Your task to perform on an android device: View the shopping cart on amazon. Search for "logitech g pro" on amazon, select the first entry, add it to the cart, then select checkout. Image 0: 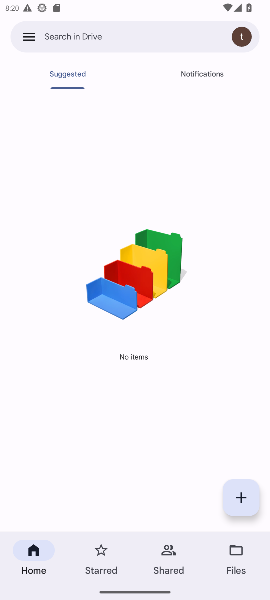
Step 0: press home button
Your task to perform on an android device: View the shopping cart on amazon. Search for "logitech g pro" on amazon, select the first entry, add it to the cart, then select checkout. Image 1: 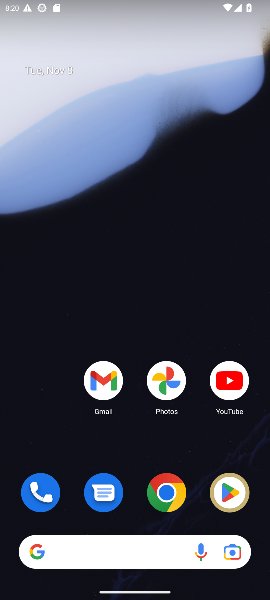
Step 1: click (161, 493)
Your task to perform on an android device: View the shopping cart on amazon. Search for "logitech g pro" on amazon, select the first entry, add it to the cart, then select checkout. Image 2: 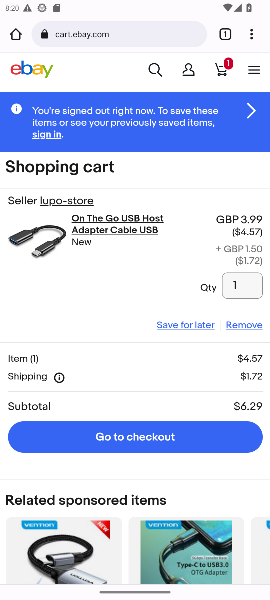
Step 2: click (163, 33)
Your task to perform on an android device: View the shopping cart on amazon. Search for "logitech g pro" on amazon, select the first entry, add it to the cart, then select checkout. Image 3: 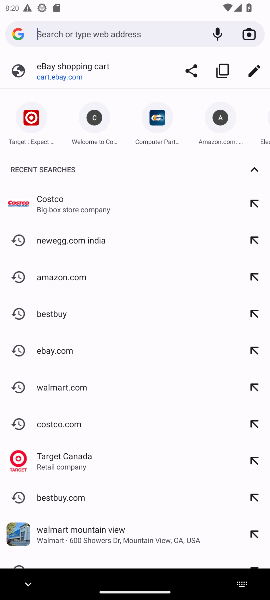
Step 3: type "amazon"
Your task to perform on an android device: View the shopping cart on amazon. Search for "logitech g pro" on amazon, select the first entry, add it to the cart, then select checkout. Image 4: 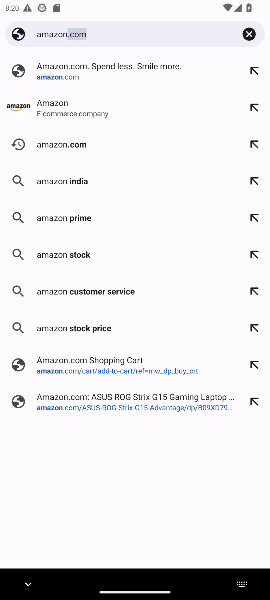
Step 4: click (56, 145)
Your task to perform on an android device: View the shopping cart on amazon. Search for "logitech g pro" on amazon, select the first entry, add it to the cart, then select checkout. Image 5: 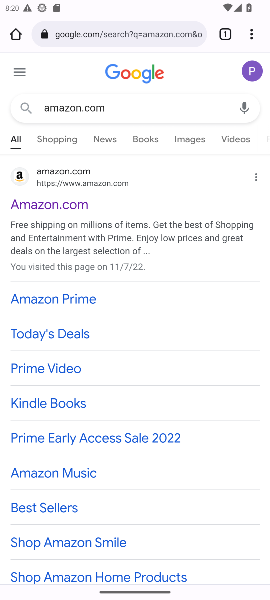
Step 5: click (77, 188)
Your task to perform on an android device: View the shopping cart on amazon. Search for "logitech g pro" on amazon, select the first entry, add it to the cart, then select checkout. Image 6: 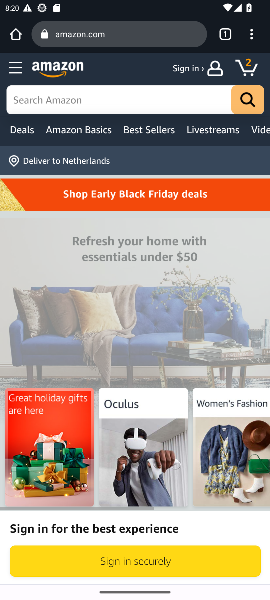
Step 6: click (126, 91)
Your task to perform on an android device: View the shopping cart on amazon. Search for "logitech g pro" on amazon, select the first entry, add it to the cart, then select checkout. Image 7: 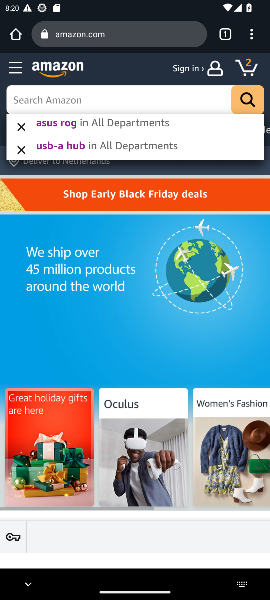
Step 7: type "logitech g pro"
Your task to perform on an android device: View the shopping cart on amazon. Search for "logitech g pro" on amazon, select the first entry, add it to the cart, then select checkout. Image 8: 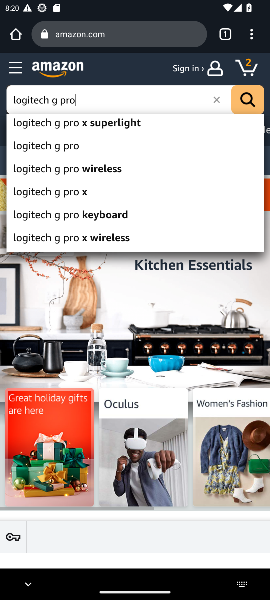
Step 8: click (44, 143)
Your task to perform on an android device: View the shopping cart on amazon. Search for "logitech g pro" on amazon, select the first entry, add it to the cart, then select checkout. Image 9: 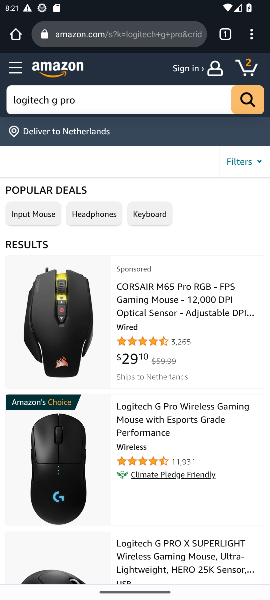
Step 9: click (68, 470)
Your task to perform on an android device: View the shopping cart on amazon. Search for "logitech g pro" on amazon, select the first entry, add it to the cart, then select checkout. Image 10: 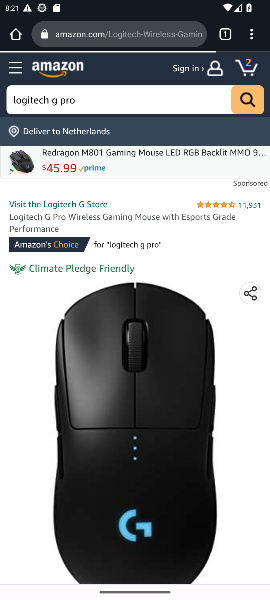
Step 10: drag from (188, 399) to (197, 2)
Your task to perform on an android device: View the shopping cart on amazon. Search for "logitech g pro" on amazon, select the first entry, add it to the cart, then select checkout. Image 11: 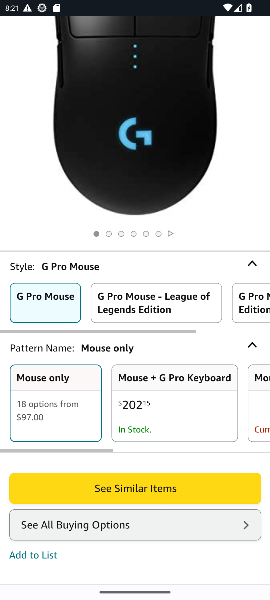
Step 11: press back button
Your task to perform on an android device: View the shopping cart on amazon. Search for "logitech g pro" on amazon, select the first entry, add it to the cart, then select checkout. Image 12: 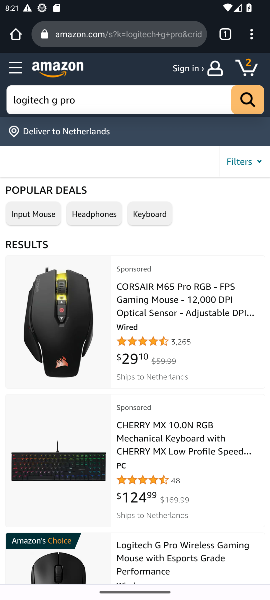
Step 12: drag from (222, 485) to (209, 191)
Your task to perform on an android device: View the shopping cart on amazon. Search for "logitech g pro" on amazon, select the first entry, add it to the cart, then select checkout. Image 13: 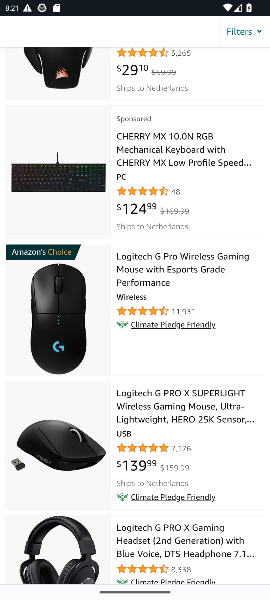
Step 13: click (78, 445)
Your task to perform on an android device: View the shopping cart on amazon. Search for "logitech g pro" on amazon, select the first entry, add it to the cart, then select checkout. Image 14: 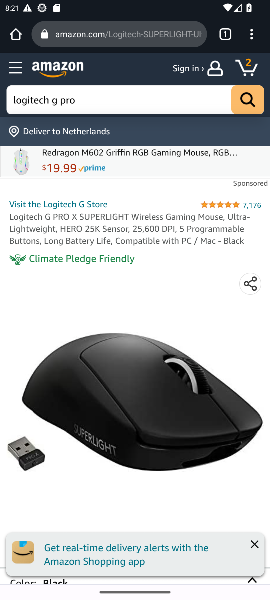
Step 14: drag from (146, 467) to (191, 120)
Your task to perform on an android device: View the shopping cart on amazon. Search for "logitech g pro" on amazon, select the first entry, add it to the cart, then select checkout. Image 15: 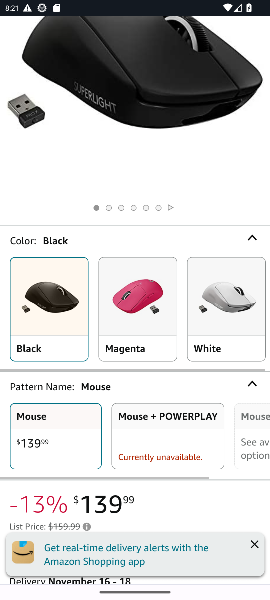
Step 15: drag from (181, 486) to (219, 153)
Your task to perform on an android device: View the shopping cart on amazon. Search for "logitech g pro" on amazon, select the first entry, add it to the cart, then select checkout. Image 16: 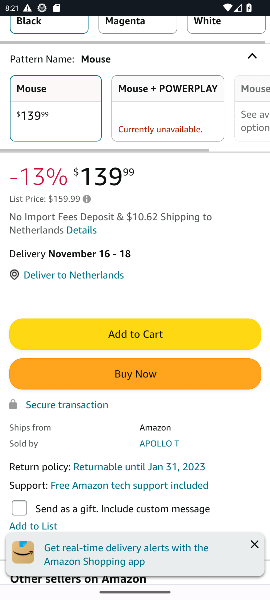
Step 16: click (144, 327)
Your task to perform on an android device: View the shopping cart on amazon. Search for "logitech g pro" on amazon, select the first entry, add it to the cart, then select checkout. Image 17: 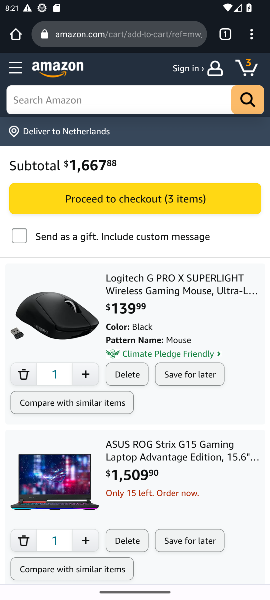
Step 17: click (144, 190)
Your task to perform on an android device: View the shopping cart on amazon. Search for "logitech g pro" on amazon, select the first entry, add it to the cart, then select checkout. Image 18: 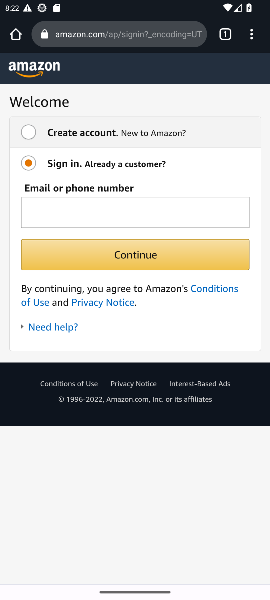
Step 18: task complete